Your task to perform on an android device: Search for vegetarian restaurants on Maps Image 0: 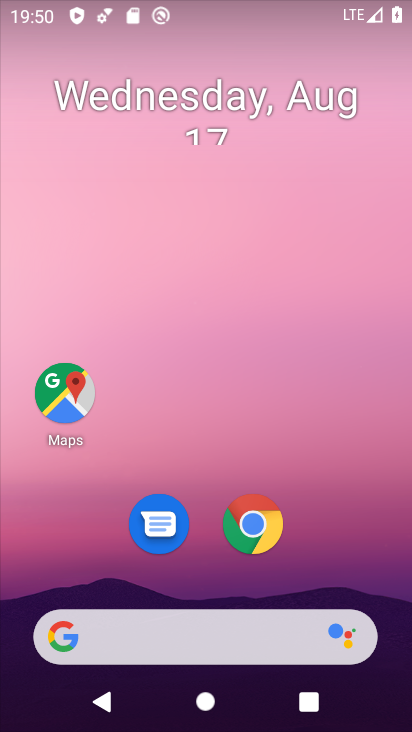
Step 0: click (62, 392)
Your task to perform on an android device: Search for vegetarian restaurants on Maps Image 1: 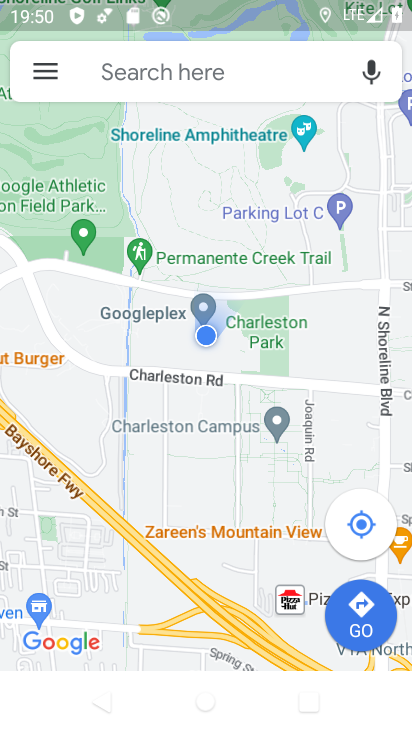
Step 1: click (219, 66)
Your task to perform on an android device: Search for vegetarian restaurants on Maps Image 2: 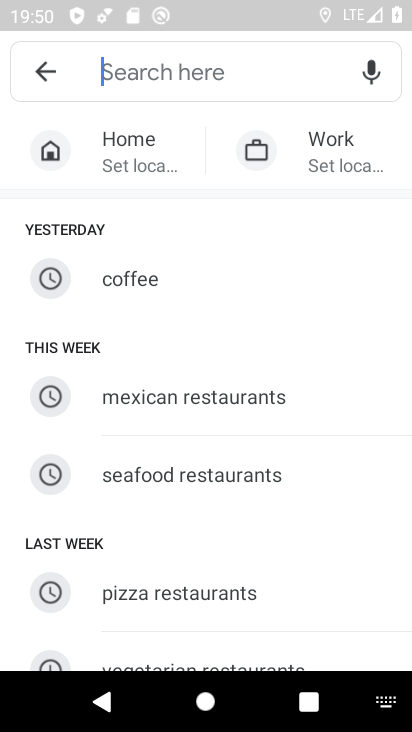
Step 2: drag from (228, 491) to (250, 135)
Your task to perform on an android device: Search for vegetarian restaurants on Maps Image 3: 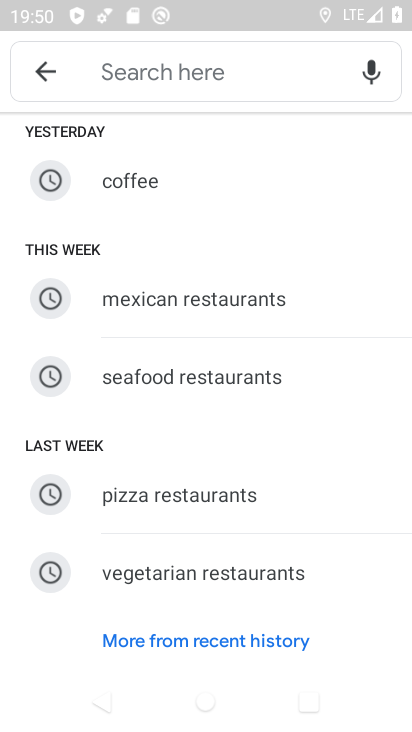
Step 3: click (237, 570)
Your task to perform on an android device: Search for vegetarian restaurants on Maps Image 4: 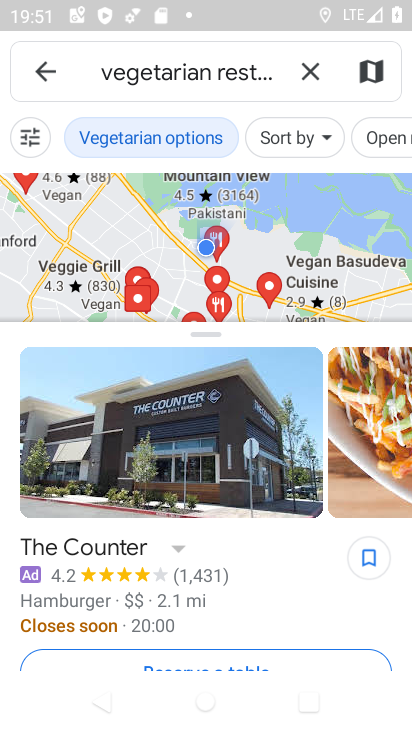
Step 4: task complete